Your task to perform on an android device: change the clock style Image 0: 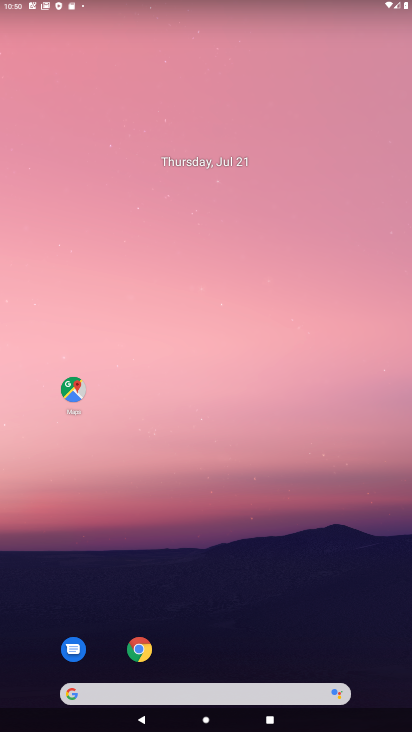
Step 0: drag from (217, 616) to (215, 36)
Your task to perform on an android device: change the clock style Image 1: 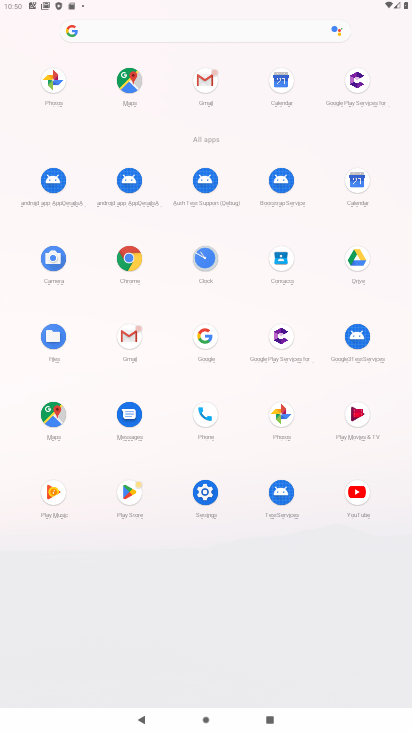
Step 1: click (206, 272)
Your task to perform on an android device: change the clock style Image 2: 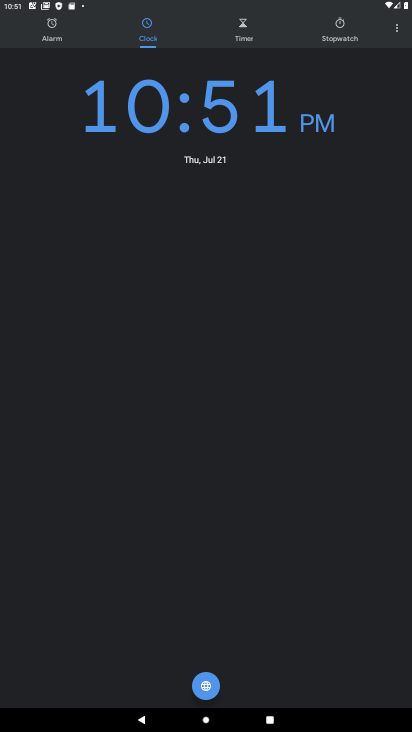
Step 2: click (401, 23)
Your task to perform on an android device: change the clock style Image 3: 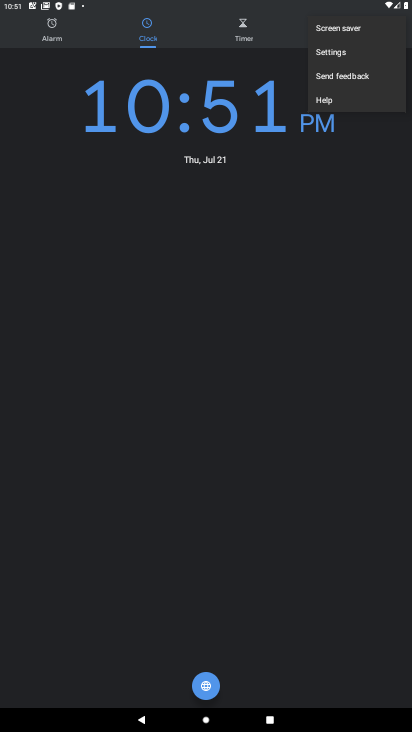
Step 3: click (358, 54)
Your task to perform on an android device: change the clock style Image 4: 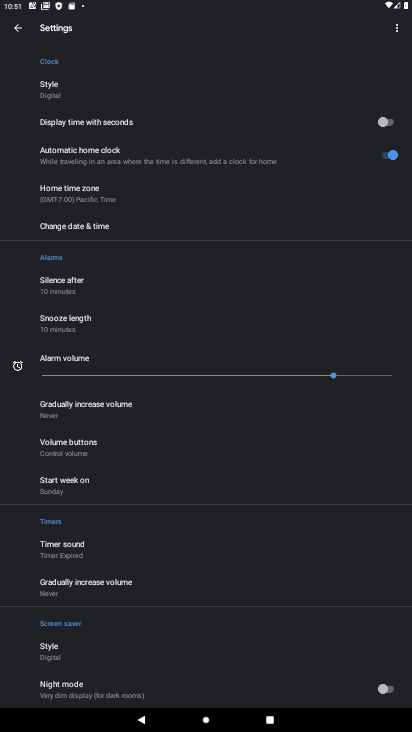
Step 4: click (169, 87)
Your task to perform on an android device: change the clock style Image 5: 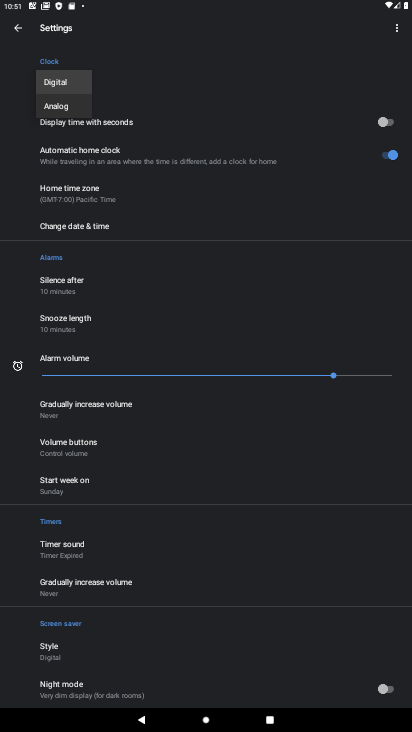
Step 5: click (70, 104)
Your task to perform on an android device: change the clock style Image 6: 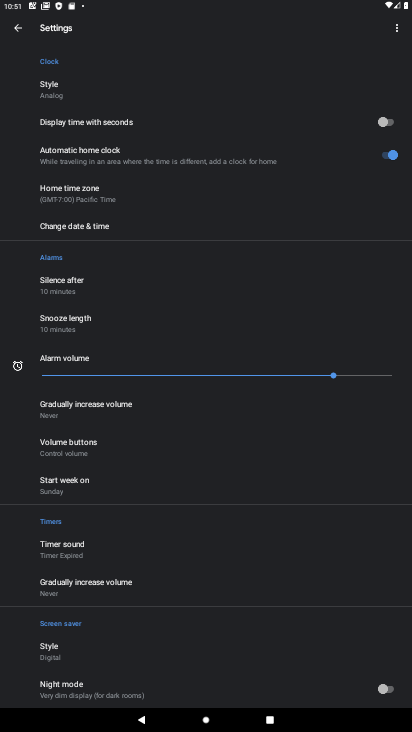
Step 6: task complete